Your task to perform on an android device: turn on translation in the chrome app Image 0: 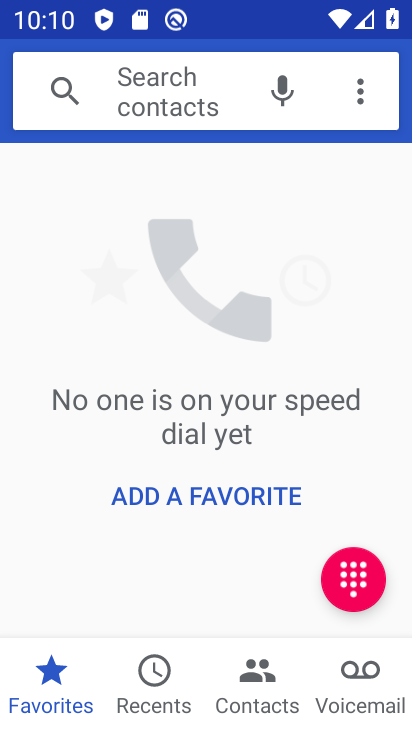
Step 0: press home button
Your task to perform on an android device: turn on translation in the chrome app Image 1: 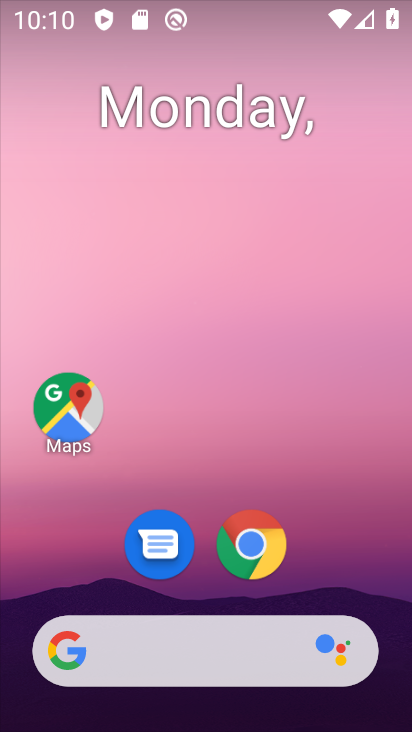
Step 1: click (240, 548)
Your task to perform on an android device: turn on translation in the chrome app Image 2: 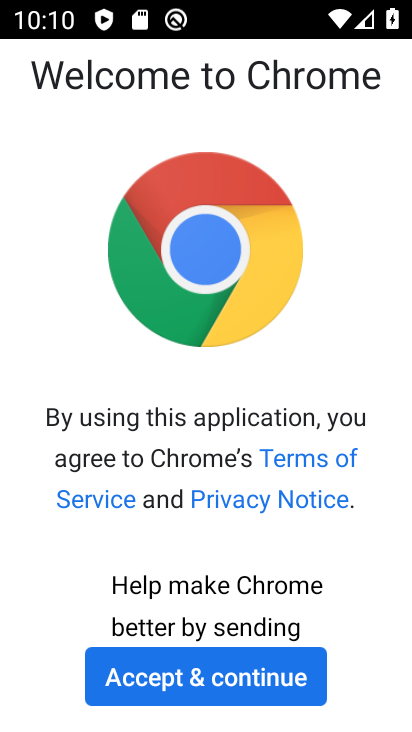
Step 2: click (214, 664)
Your task to perform on an android device: turn on translation in the chrome app Image 3: 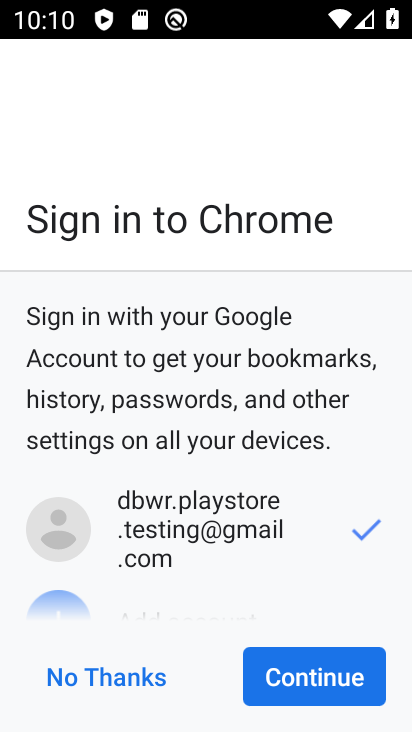
Step 3: click (294, 668)
Your task to perform on an android device: turn on translation in the chrome app Image 4: 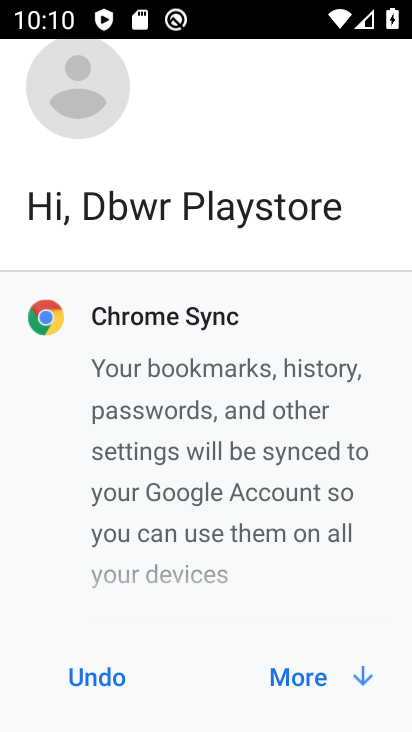
Step 4: click (287, 676)
Your task to perform on an android device: turn on translation in the chrome app Image 5: 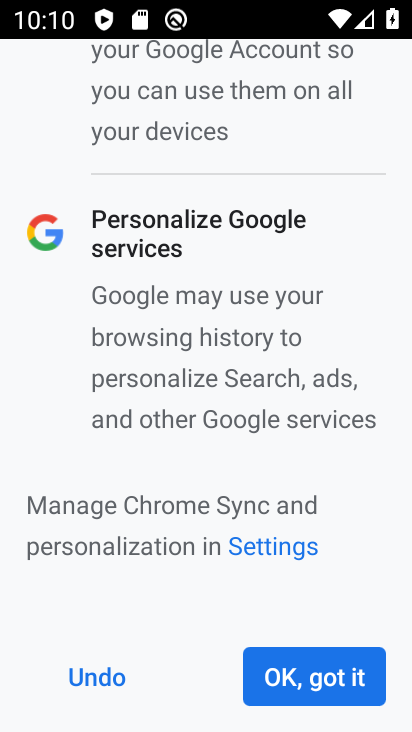
Step 5: click (287, 676)
Your task to perform on an android device: turn on translation in the chrome app Image 6: 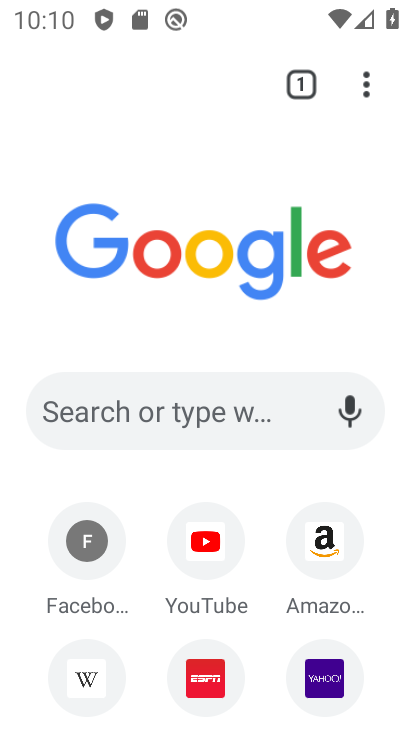
Step 6: drag from (377, 81) to (280, 598)
Your task to perform on an android device: turn on translation in the chrome app Image 7: 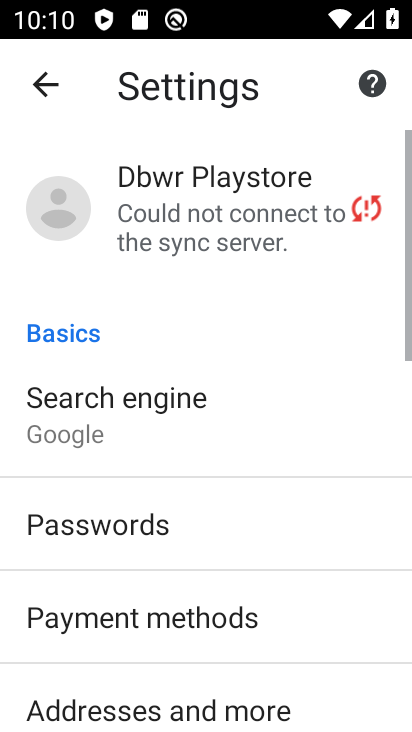
Step 7: drag from (231, 628) to (290, 248)
Your task to perform on an android device: turn on translation in the chrome app Image 8: 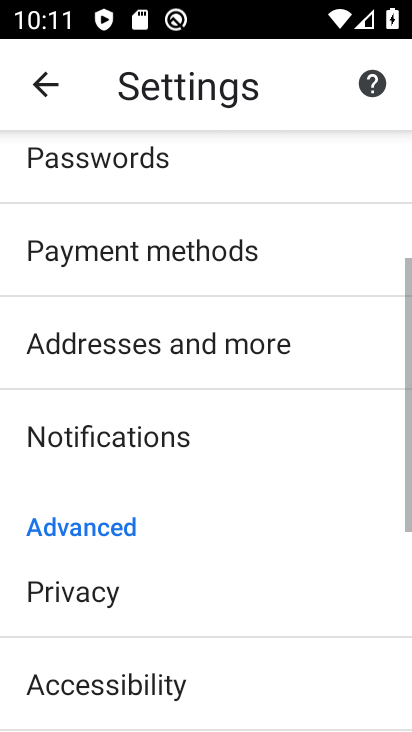
Step 8: drag from (202, 578) to (318, 284)
Your task to perform on an android device: turn on translation in the chrome app Image 9: 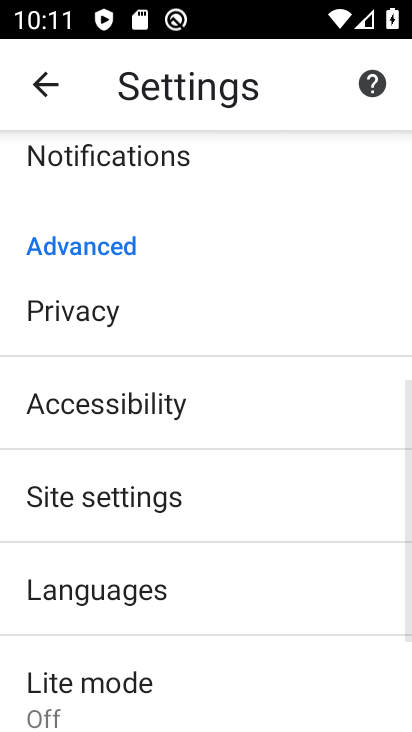
Step 9: click (197, 592)
Your task to perform on an android device: turn on translation in the chrome app Image 10: 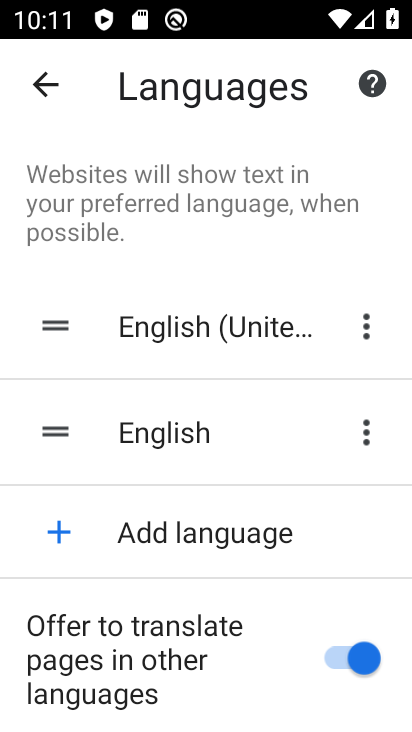
Step 10: task complete